Your task to perform on an android device: Show the shopping cart on newegg. Add "usb-c" to the cart on newegg Image 0: 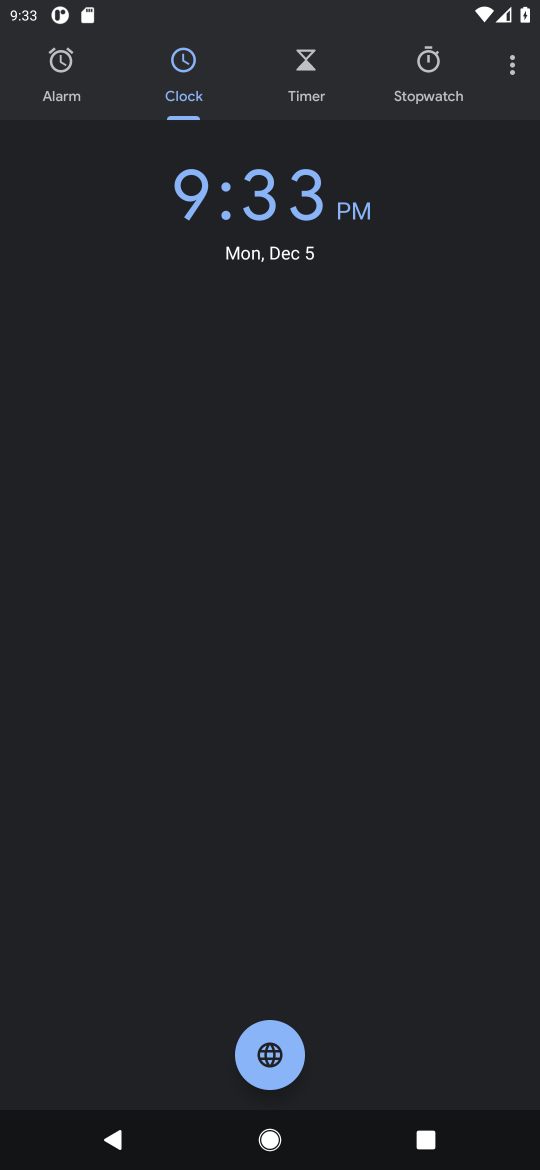
Step 0: press home button
Your task to perform on an android device: Show the shopping cart on newegg. Add "usb-c" to the cart on newegg Image 1: 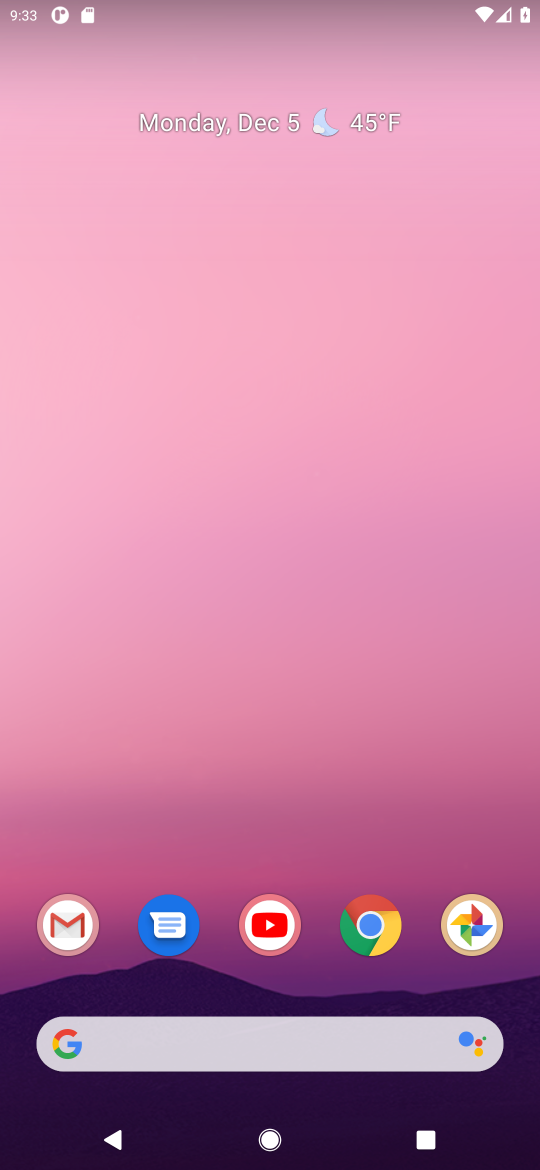
Step 1: click (368, 926)
Your task to perform on an android device: Show the shopping cart on newegg. Add "usb-c" to the cart on newegg Image 2: 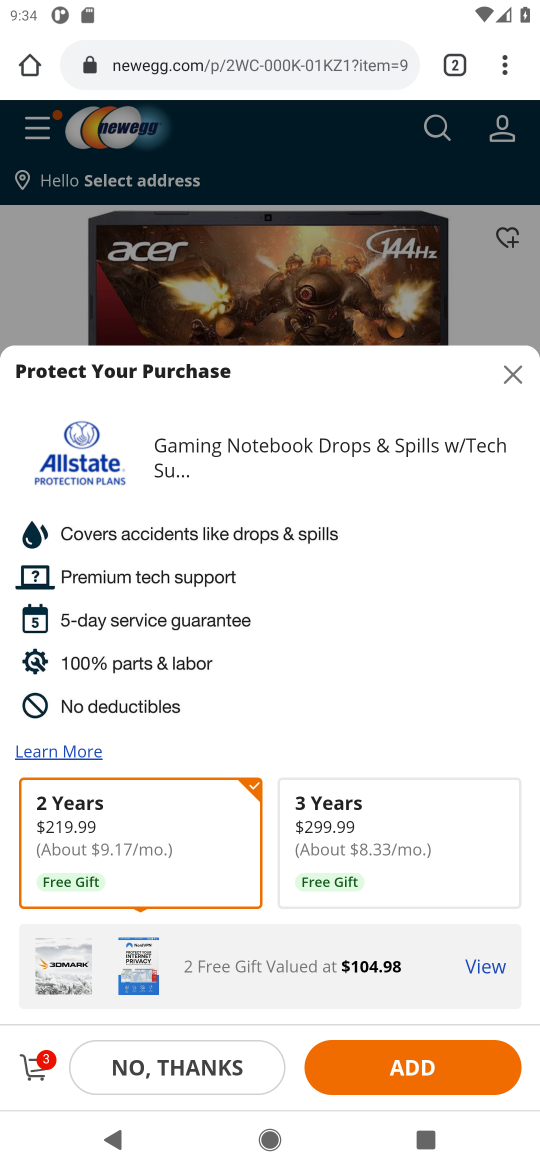
Step 2: click (37, 1071)
Your task to perform on an android device: Show the shopping cart on newegg. Add "usb-c" to the cart on newegg Image 3: 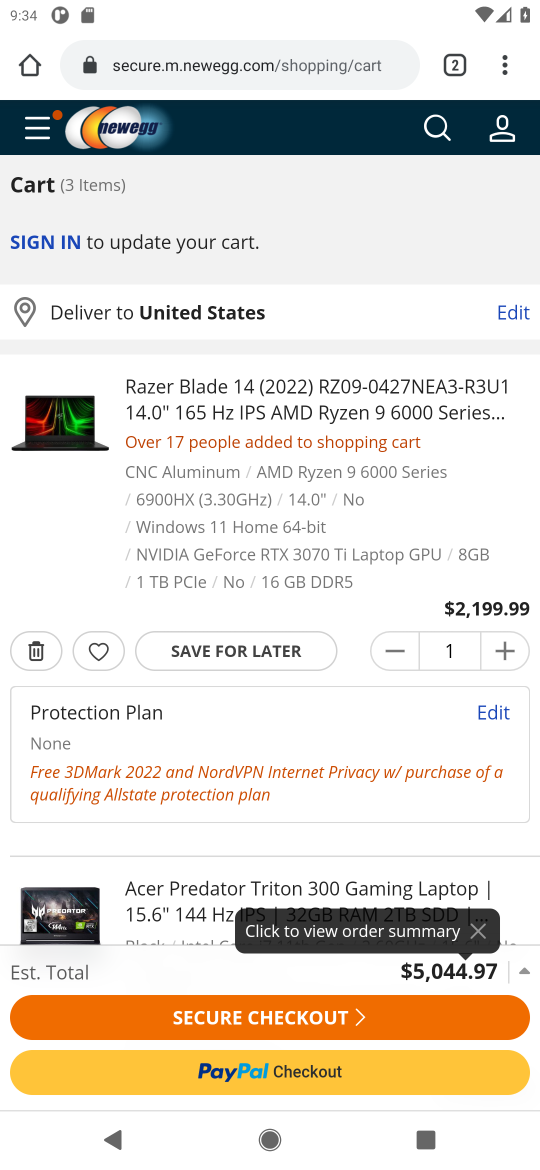
Step 3: click (428, 127)
Your task to perform on an android device: Show the shopping cart on newegg. Add "usb-c" to the cart on newegg Image 4: 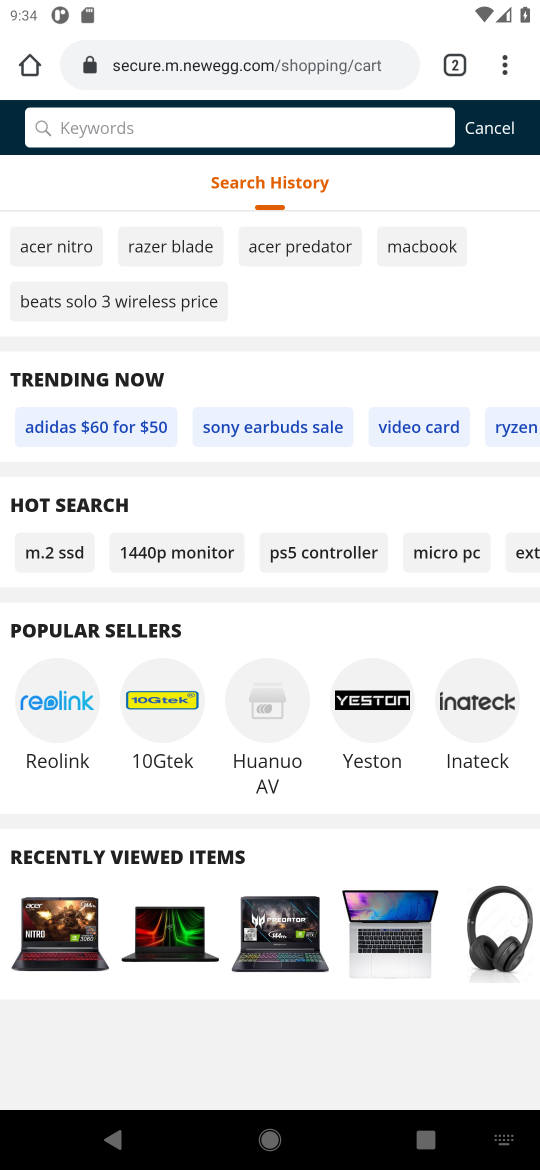
Step 4: type "usb-c"
Your task to perform on an android device: Show the shopping cart on newegg. Add "usb-c" to the cart on newegg Image 5: 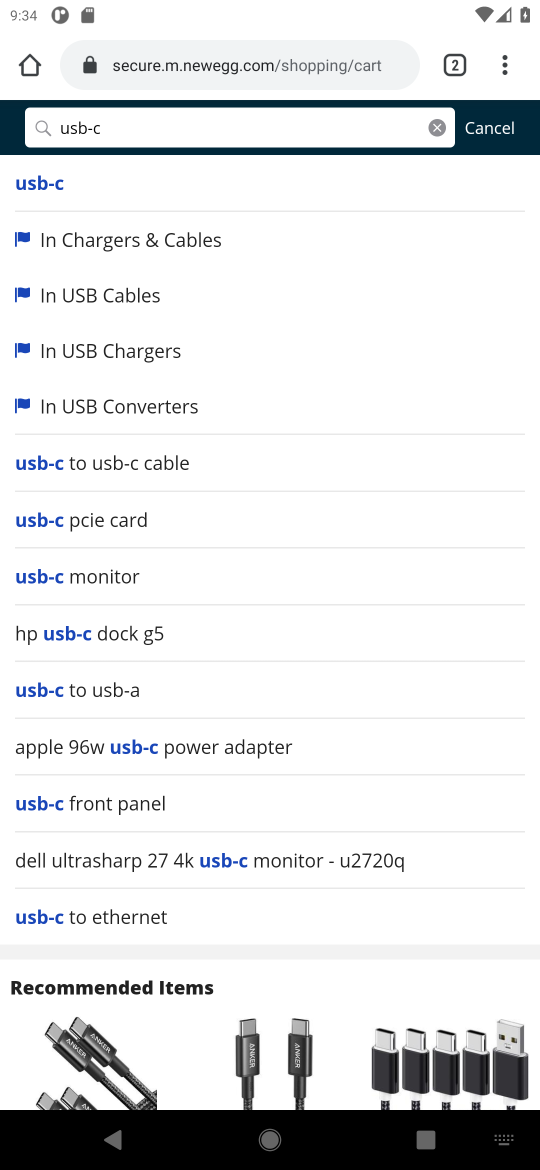
Step 5: click (43, 188)
Your task to perform on an android device: Show the shopping cart on newegg. Add "usb-c" to the cart on newegg Image 6: 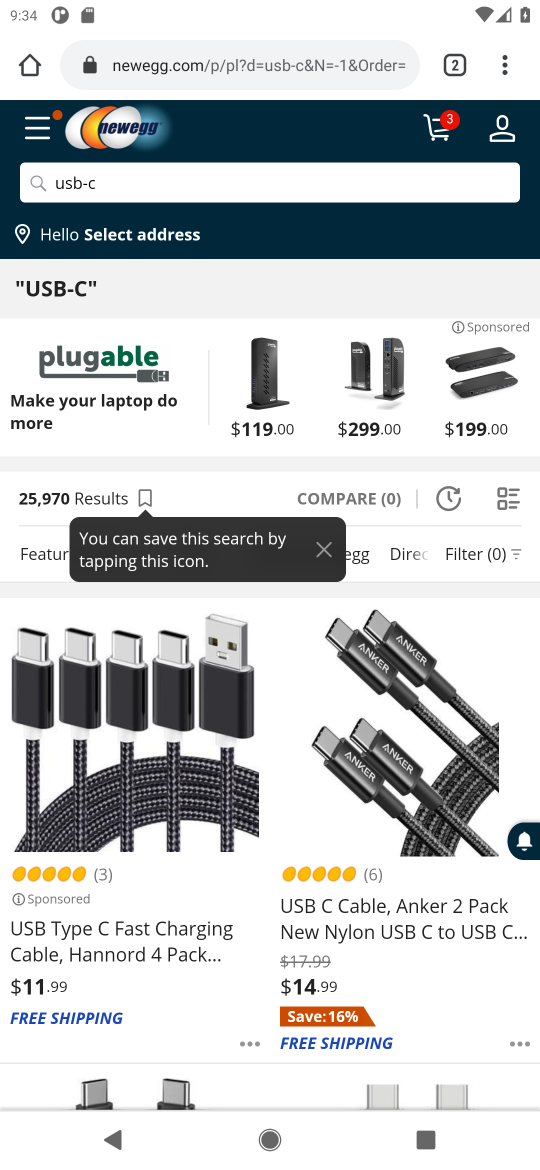
Step 6: click (111, 776)
Your task to perform on an android device: Show the shopping cart on newegg. Add "usb-c" to the cart on newegg Image 7: 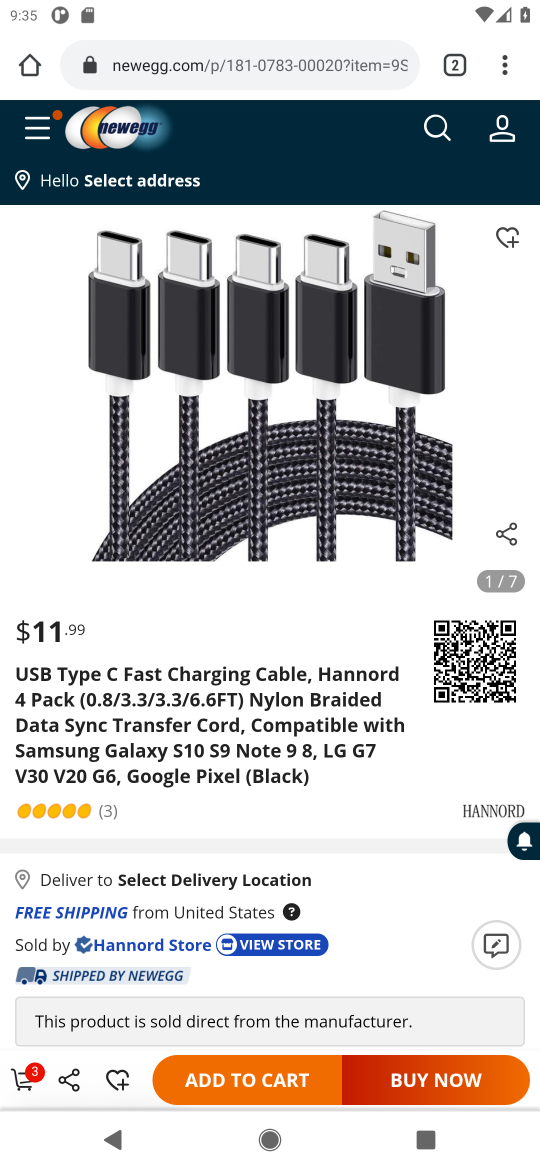
Step 7: click (228, 1089)
Your task to perform on an android device: Show the shopping cart on newegg. Add "usb-c" to the cart on newegg Image 8: 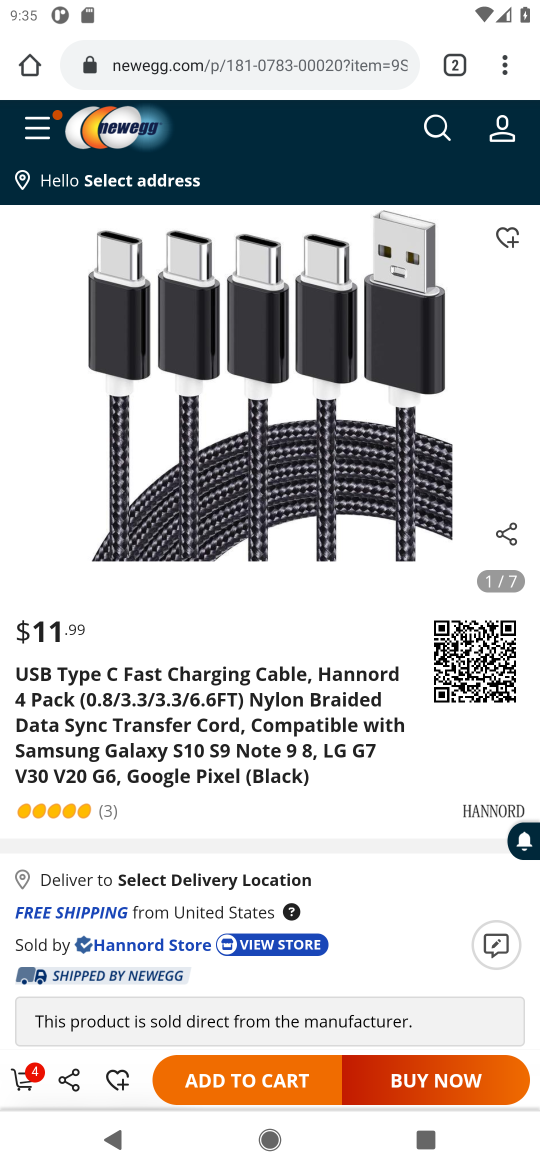
Step 8: task complete